Your task to perform on an android device: toggle sleep mode Image 0: 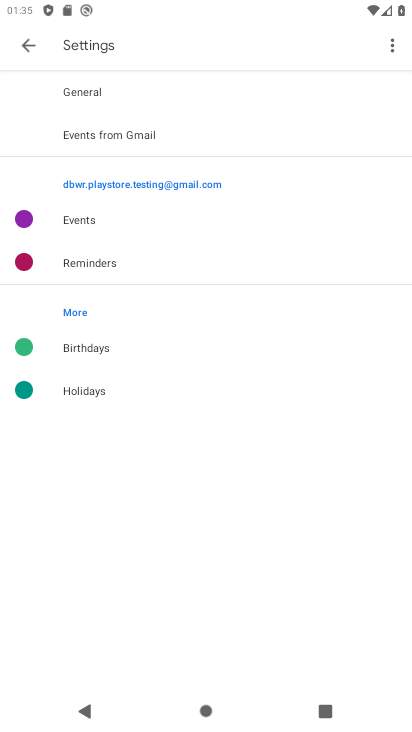
Step 0: press home button
Your task to perform on an android device: toggle sleep mode Image 1: 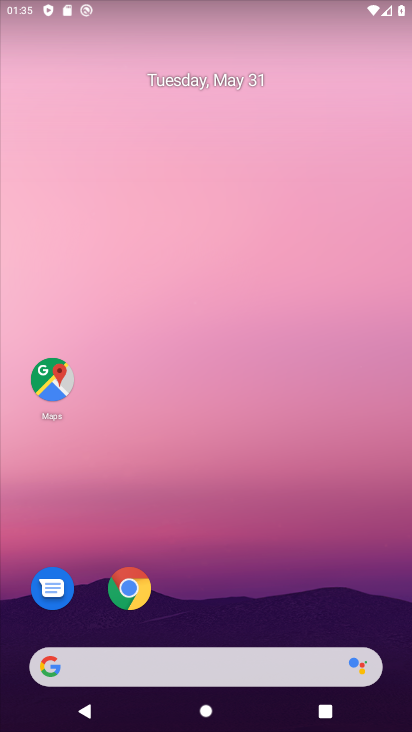
Step 1: drag from (340, 562) to (325, 195)
Your task to perform on an android device: toggle sleep mode Image 2: 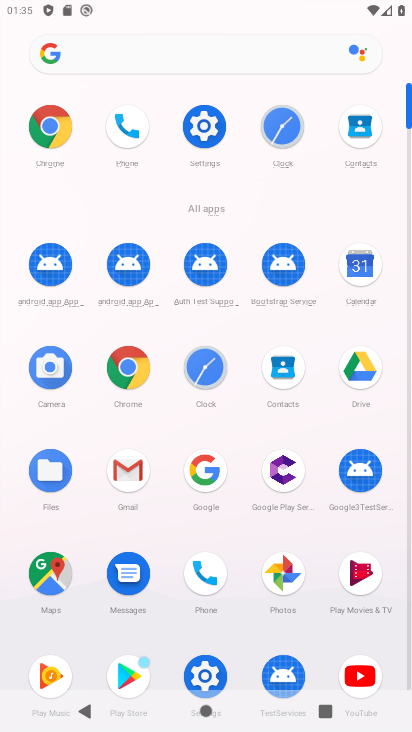
Step 2: click (204, 148)
Your task to perform on an android device: toggle sleep mode Image 3: 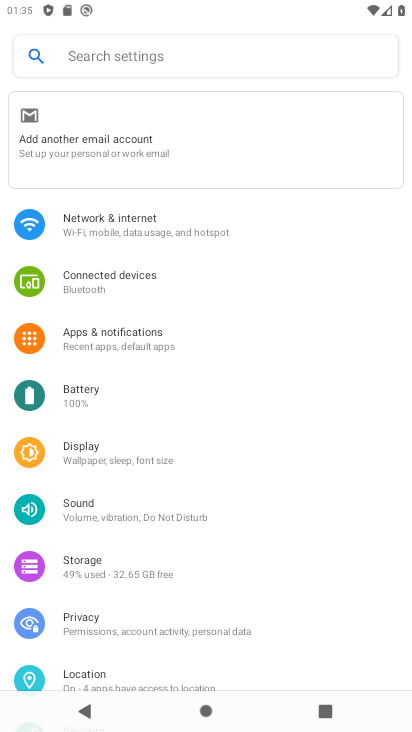
Step 3: drag from (317, 539) to (342, 404)
Your task to perform on an android device: toggle sleep mode Image 4: 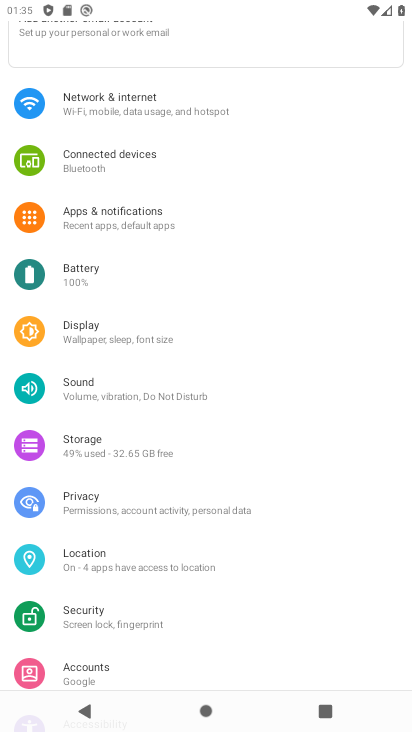
Step 4: drag from (336, 547) to (333, 420)
Your task to perform on an android device: toggle sleep mode Image 5: 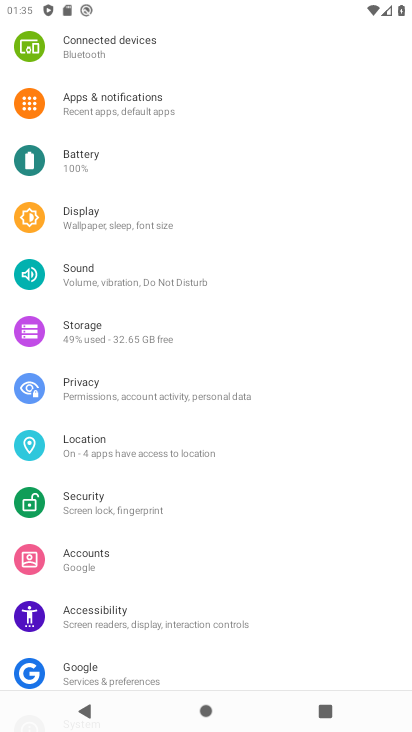
Step 5: drag from (331, 560) to (325, 400)
Your task to perform on an android device: toggle sleep mode Image 6: 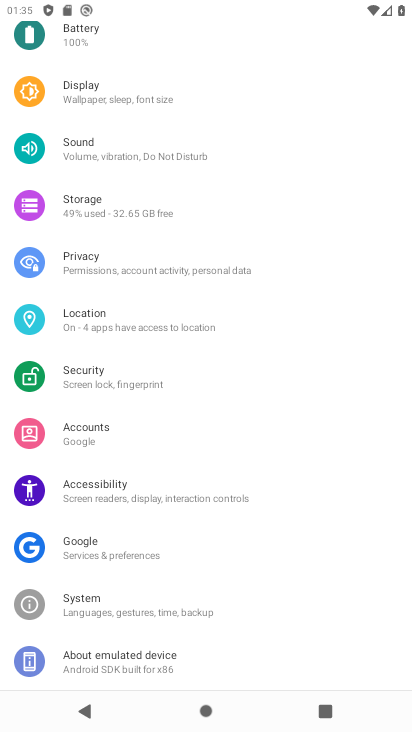
Step 6: drag from (339, 564) to (340, 434)
Your task to perform on an android device: toggle sleep mode Image 7: 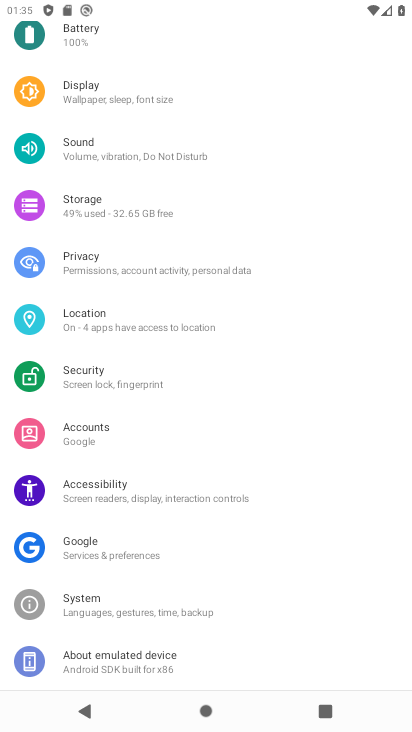
Step 7: drag from (328, 246) to (328, 342)
Your task to perform on an android device: toggle sleep mode Image 8: 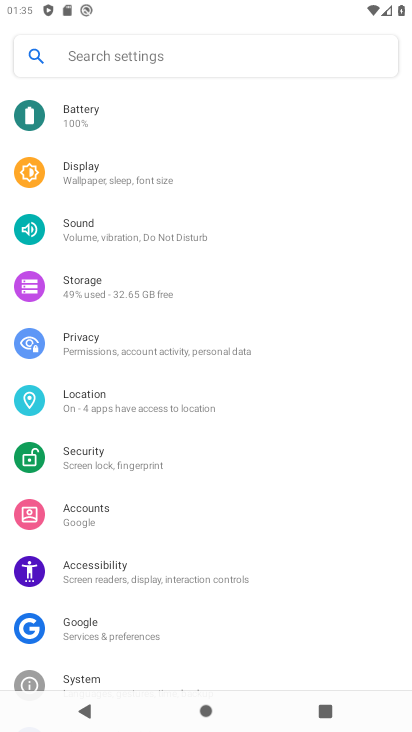
Step 8: drag from (325, 231) to (324, 345)
Your task to perform on an android device: toggle sleep mode Image 9: 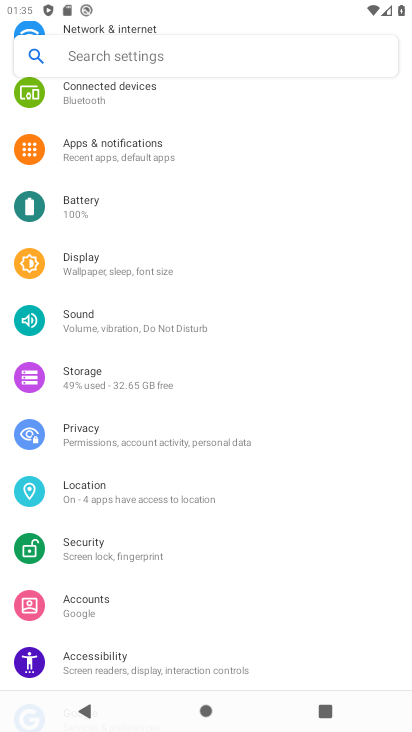
Step 9: drag from (314, 192) to (316, 336)
Your task to perform on an android device: toggle sleep mode Image 10: 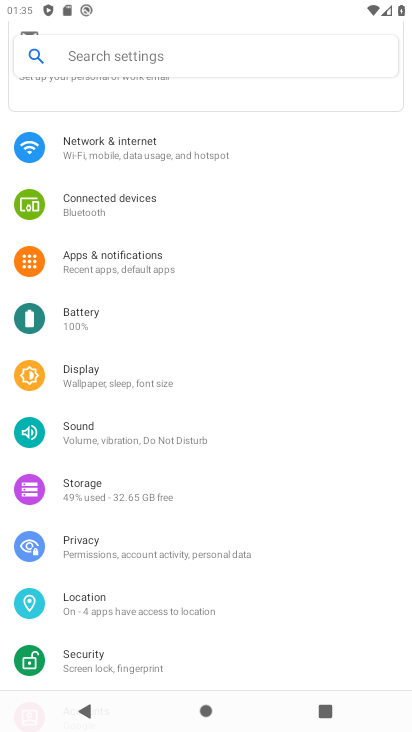
Step 10: drag from (305, 176) to (321, 326)
Your task to perform on an android device: toggle sleep mode Image 11: 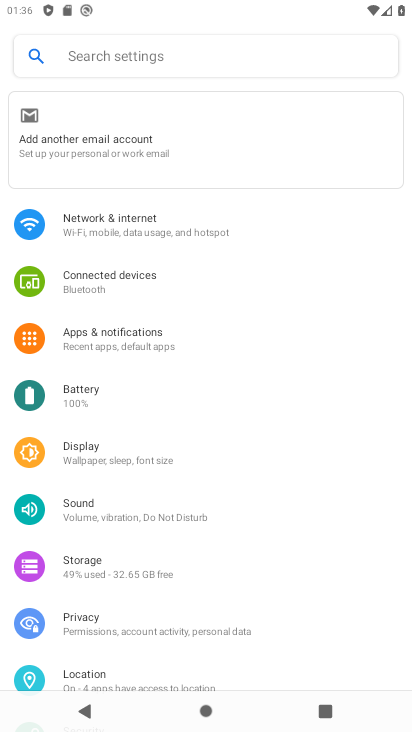
Step 11: click (160, 459)
Your task to perform on an android device: toggle sleep mode Image 12: 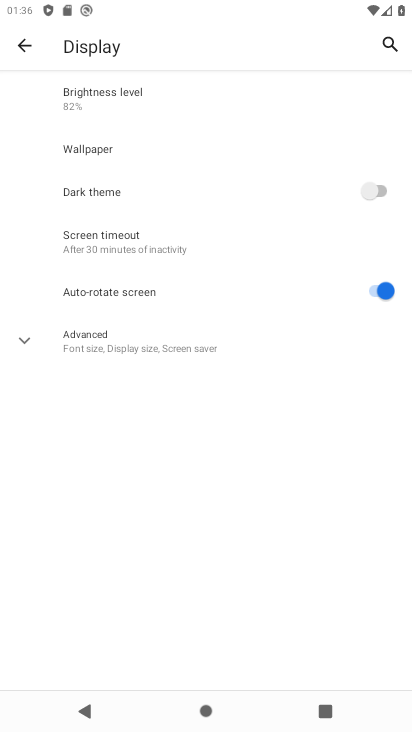
Step 12: click (194, 343)
Your task to perform on an android device: toggle sleep mode Image 13: 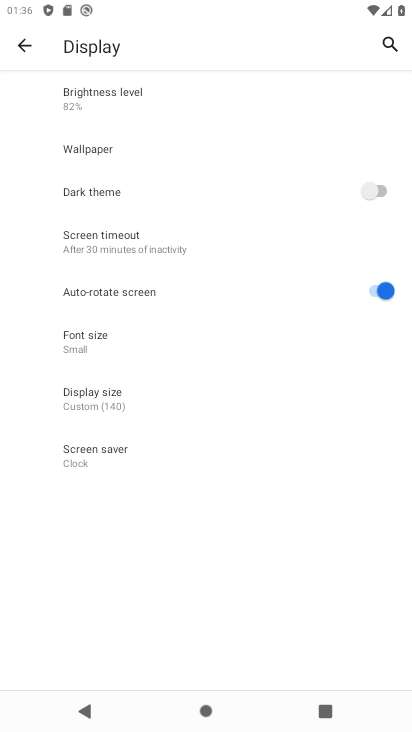
Step 13: task complete